Your task to perform on an android device: change the clock display to analog Image 0: 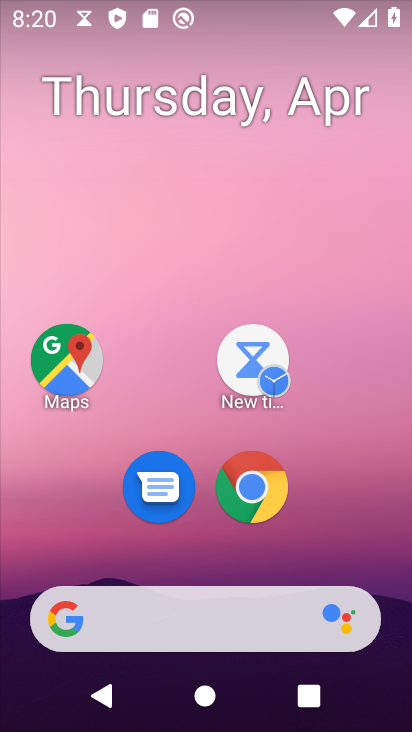
Step 0: drag from (338, 372) to (313, 88)
Your task to perform on an android device: change the clock display to analog Image 1: 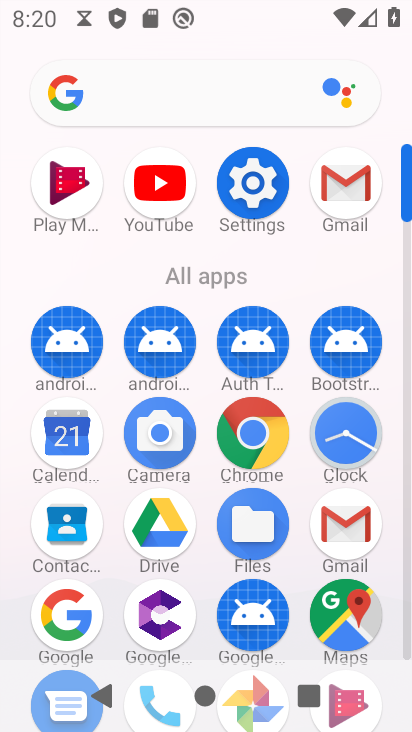
Step 1: click (359, 427)
Your task to perform on an android device: change the clock display to analog Image 2: 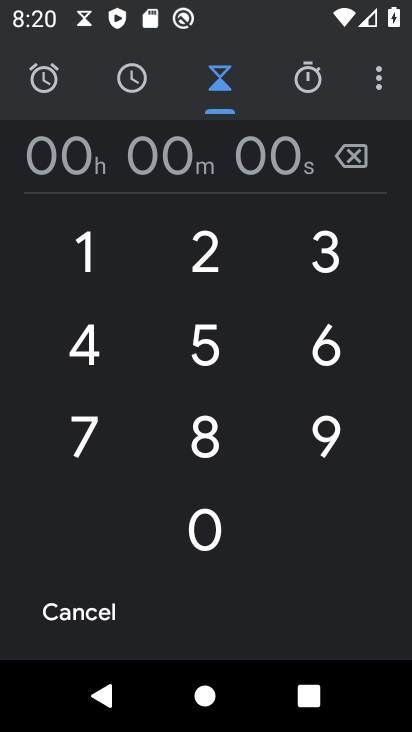
Step 2: click (382, 86)
Your task to perform on an android device: change the clock display to analog Image 3: 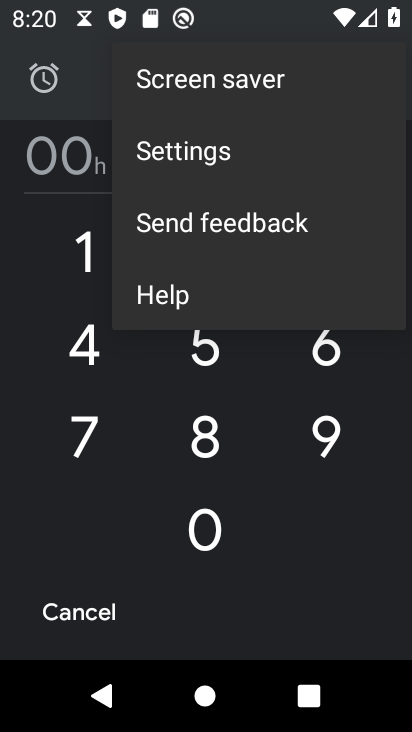
Step 3: click (185, 158)
Your task to perform on an android device: change the clock display to analog Image 4: 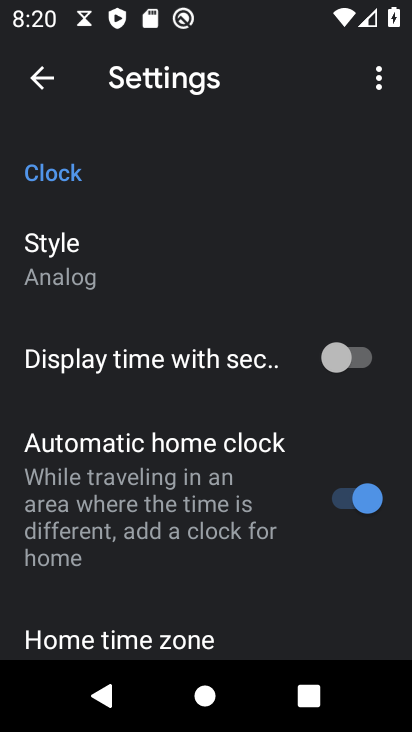
Step 4: click (70, 278)
Your task to perform on an android device: change the clock display to analog Image 5: 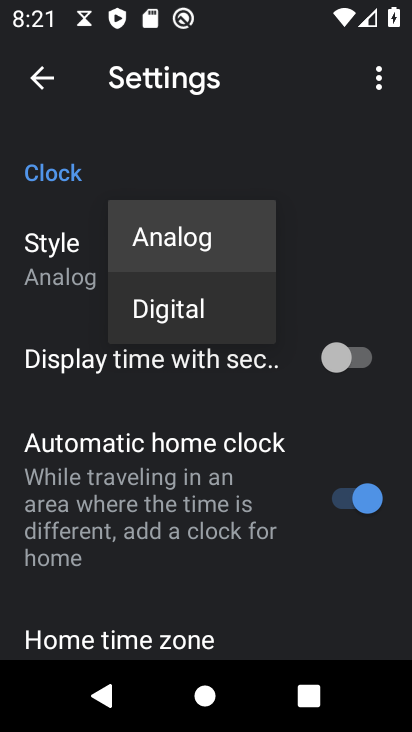
Step 5: task complete